Your task to perform on an android device: turn on translation in the chrome app Image 0: 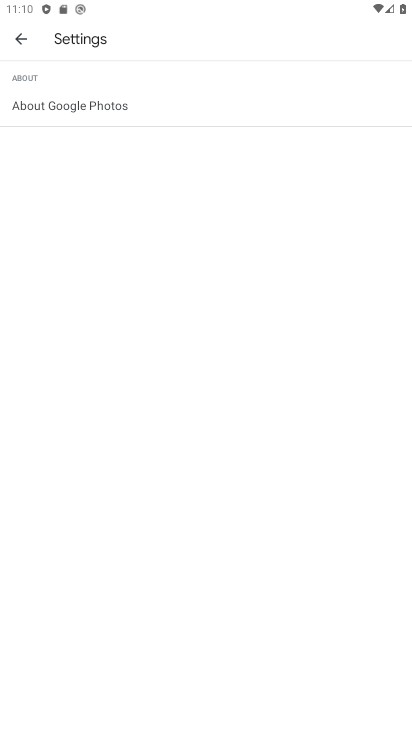
Step 0: press home button
Your task to perform on an android device: turn on translation in the chrome app Image 1: 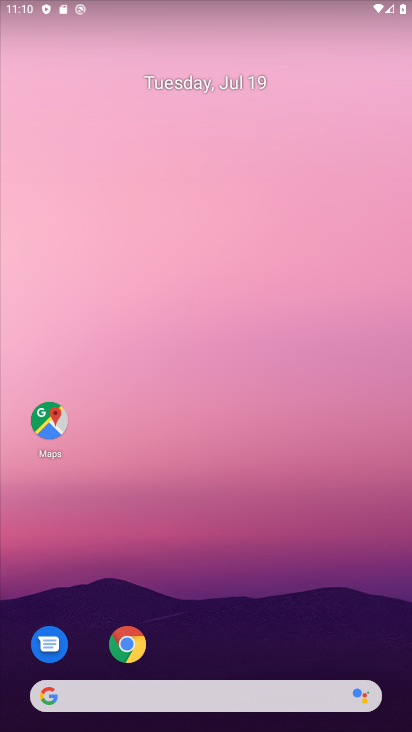
Step 1: drag from (296, 616) to (312, 78)
Your task to perform on an android device: turn on translation in the chrome app Image 2: 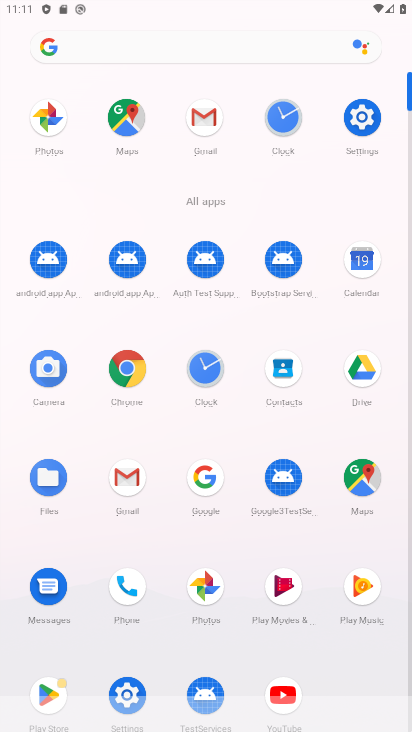
Step 2: click (128, 374)
Your task to perform on an android device: turn on translation in the chrome app Image 3: 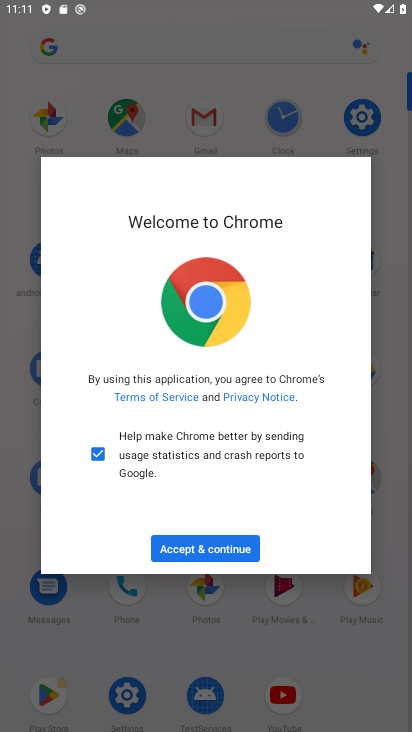
Step 3: click (227, 545)
Your task to perform on an android device: turn on translation in the chrome app Image 4: 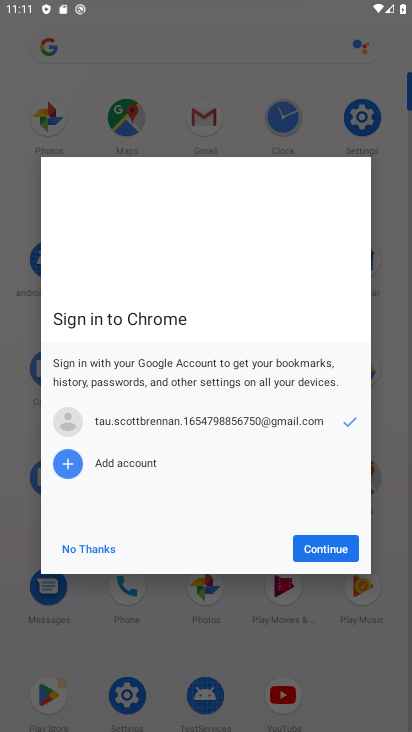
Step 4: click (343, 550)
Your task to perform on an android device: turn on translation in the chrome app Image 5: 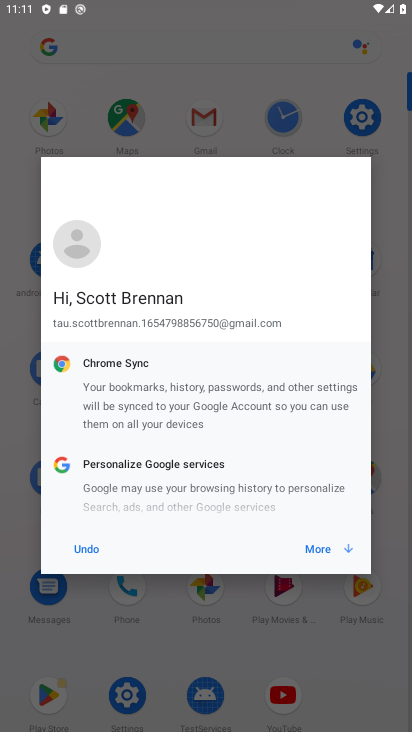
Step 5: click (325, 548)
Your task to perform on an android device: turn on translation in the chrome app Image 6: 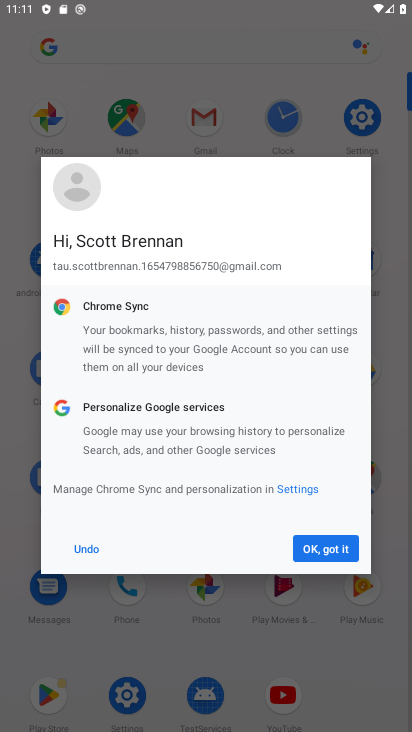
Step 6: click (325, 548)
Your task to perform on an android device: turn on translation in the chrome app Image 7: 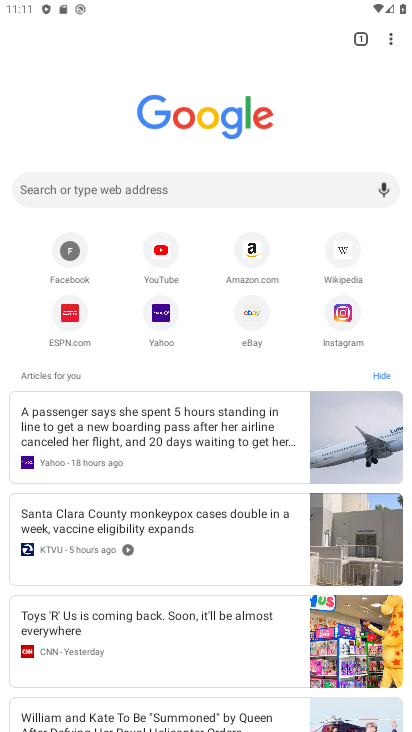
Step 7: click (390, 38)
Your task to perform on an android device: turn on translation in the chrome app Image 8: 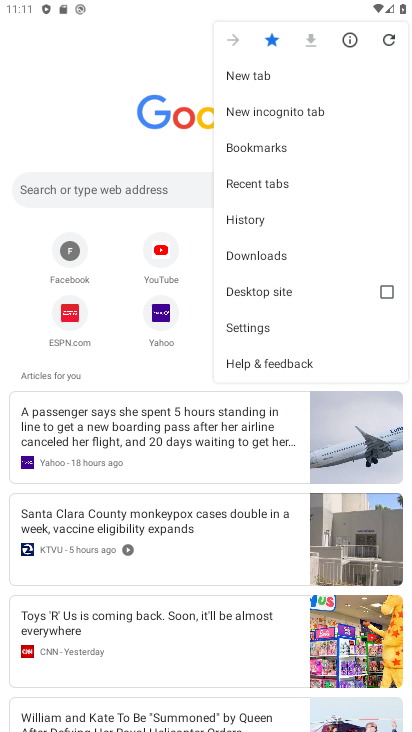
Step 8: click (269, 324)
Your task to perform on an android device: turn on translation in the chrome app Image 9: 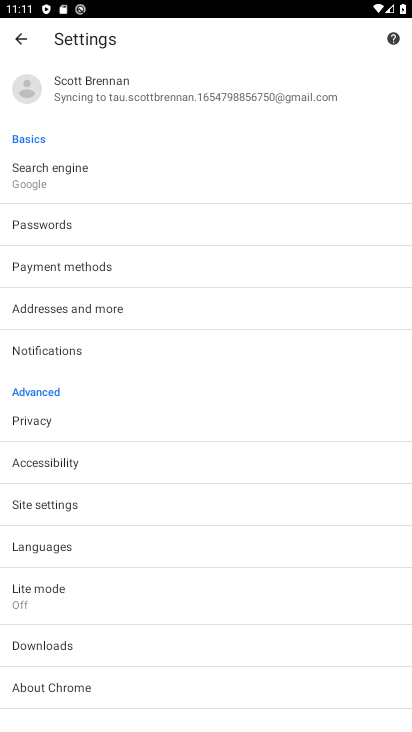
Step 9: click (143, 541)
Your task to perform on an android device: turn on translation in the chrome app Image 10: 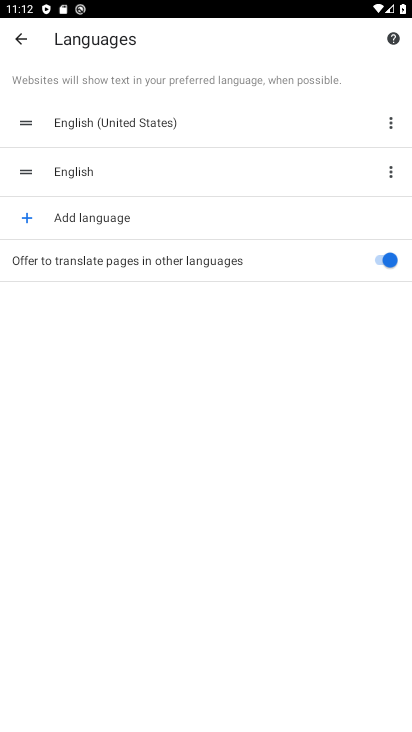
Step 10: task complete